Your task to perform on an android device: Open settings on Google Maps Image 0: 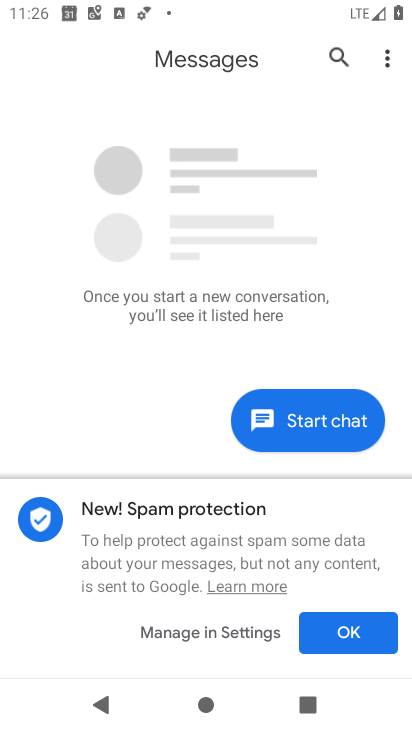
Step 0: press home button
Your task to perform on an android device: Open settings on Google Maps Image 1: 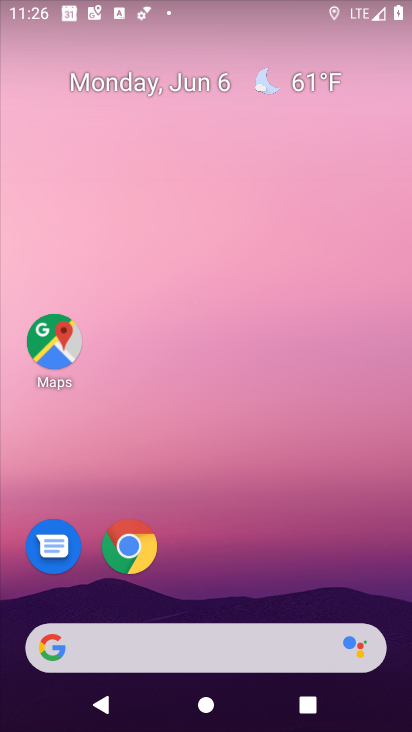
Step 1: click (55, 340)
Your task to perform on an android device: Open settings on Google Maps Image 2: 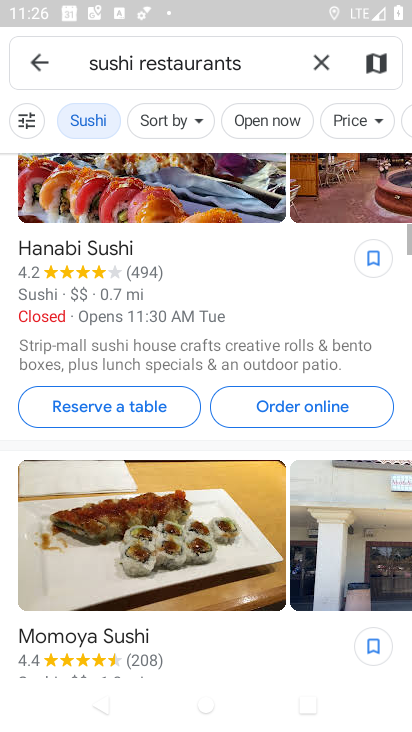
Step 2: click (318, 62)
Your task to perform on an android device: Open settings on Google Maps Image 3: 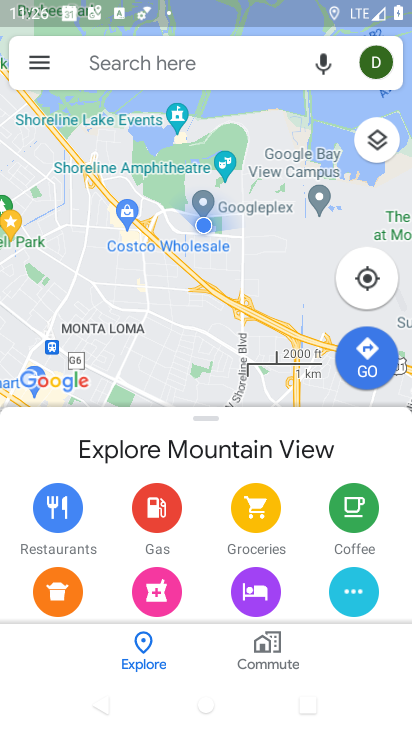
Step 3: click (41, 61)
Your task to perform on an android device: Open settings on Google Maps Image 4: 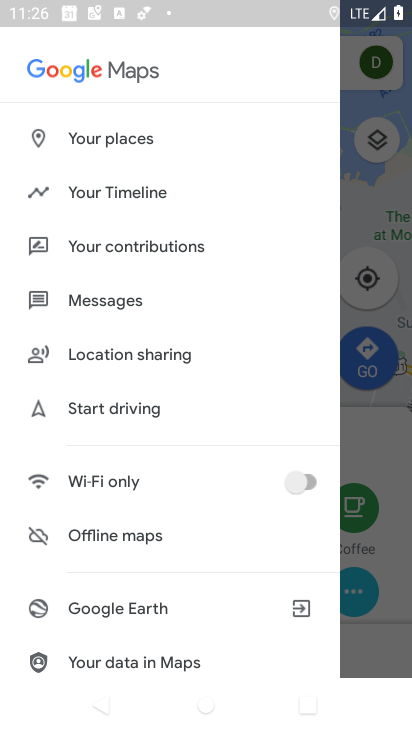
Step 4: drag from (230, 640) to (247, 186)
Your task to perform on an android device: Open settings on Google Maps Image 5: 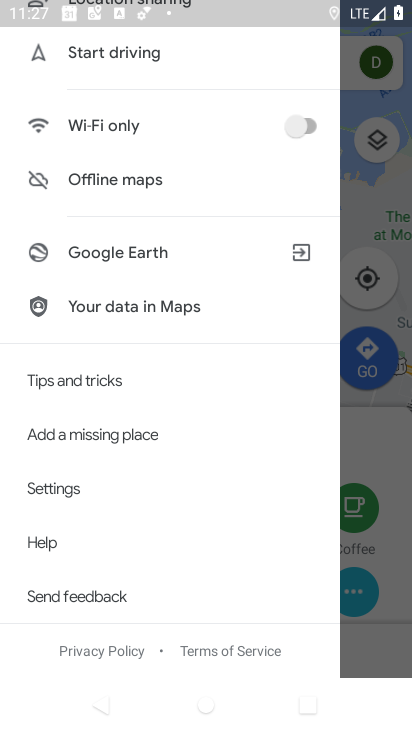
Step 5: click (46, 485)
Your task to perform on an android device: Open settings on Google Maps Image 6: 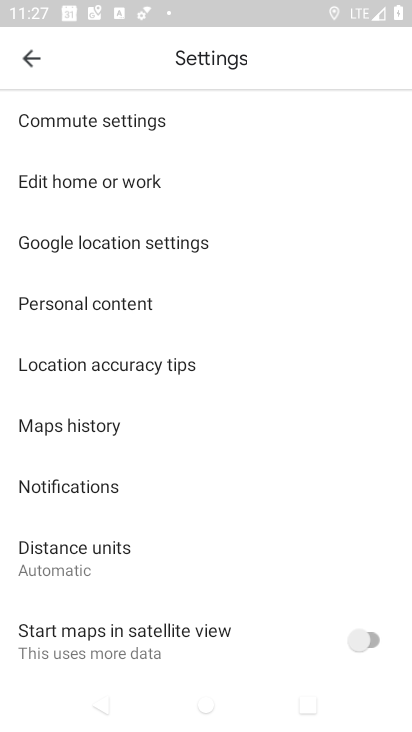
Step 6: task complete